Your task to perform on an android device: Clear all items from cart on costco.com. Search for rayovac triple a on costco.com, select the first entry, add it to the cart, then select checkout. Image 0: 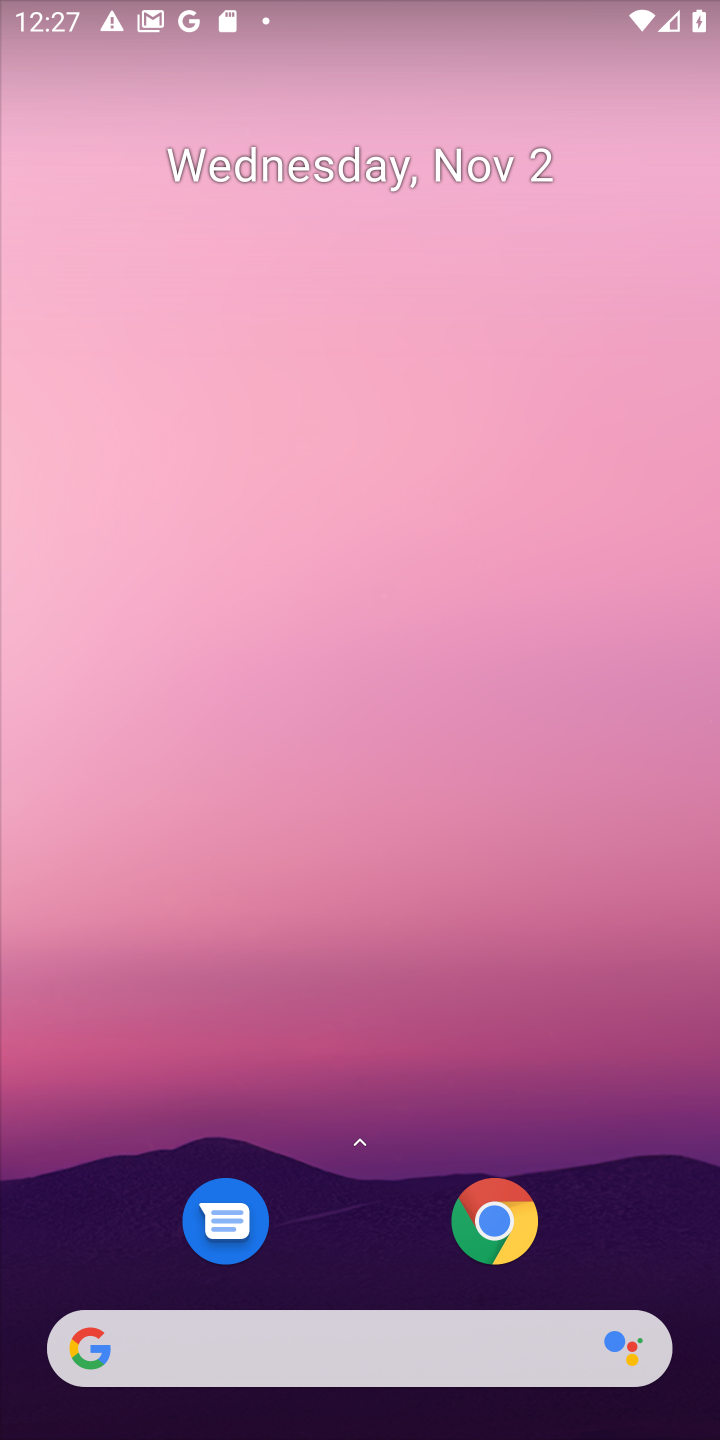
Step 0: click (414, 1329)
Your task to perform on an android device: Clear all items from cart on costco.com. Search for rayovac triple a on costco.com, select the first entry, add it to the cart, then select checkout. Image 1: 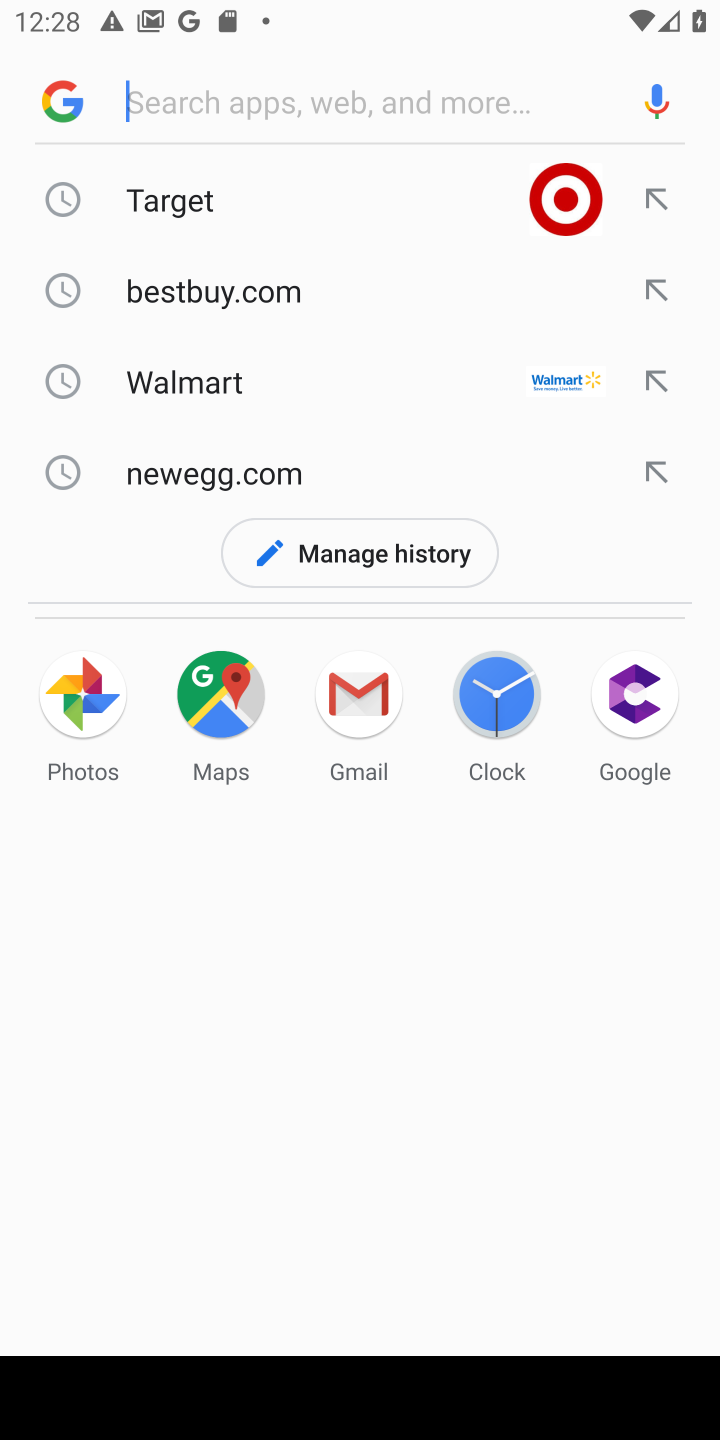
Step 1: task complete